Your task to perform on an android device: Open the calendar app, open the side menu, and click the "Day" option Image 0: 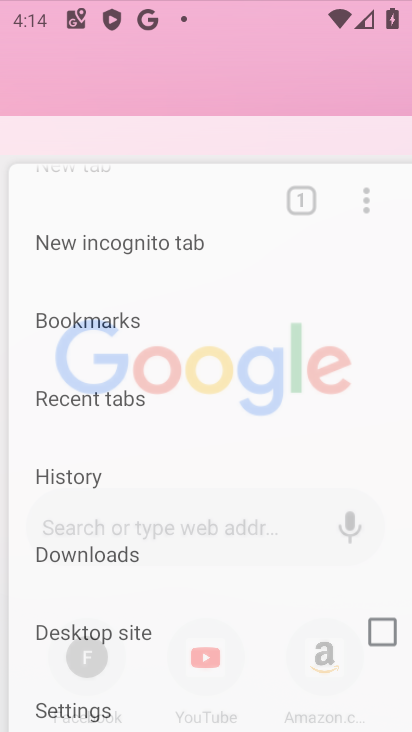
Step 0: press home button
Your task to perform on an android device: Open the calendar app, open the side menu, and click the "Day" option Image 1: 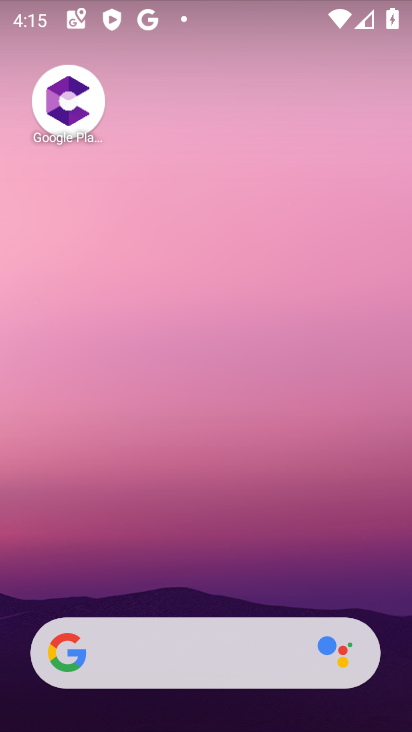
Step 1: click (147, 208)
Your task to perform on an android device: Open the calendar app, open the side menu, and click the "Day" option Image 2: 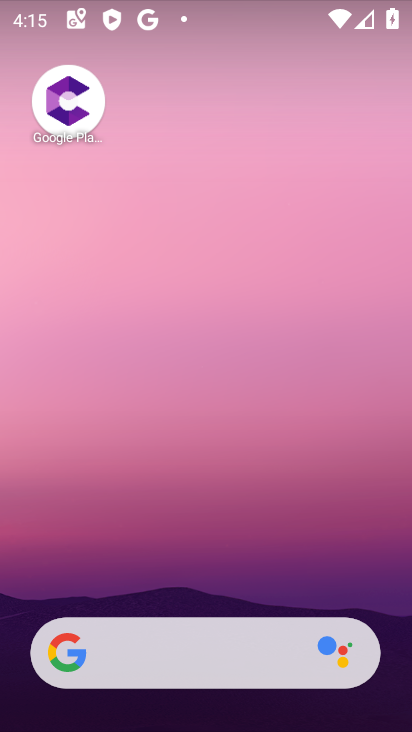
Step 2: click (172, 158)
Your task to perform on an android device: Open the calendar app, open the side menu, and click the "Day" option Image 3: 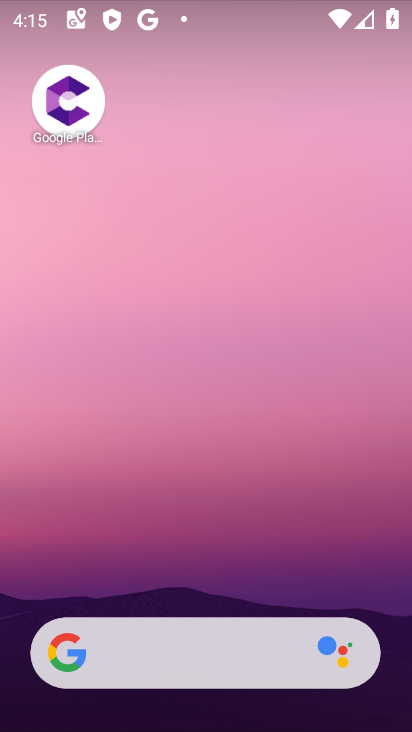
Step 3: drag from (212, 613) to (279, 59)
Your task to perform on an android device: Open the calendar app, open the side menu, and click the "Day" option Image 4: 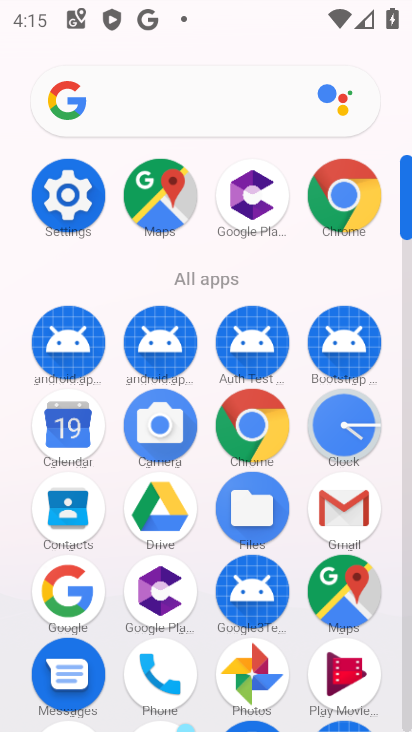
Step 4: click (49, 422)
Your task to perform on an android device: Open the calendar app, open the side menu, and click the "Day" option Image 5: 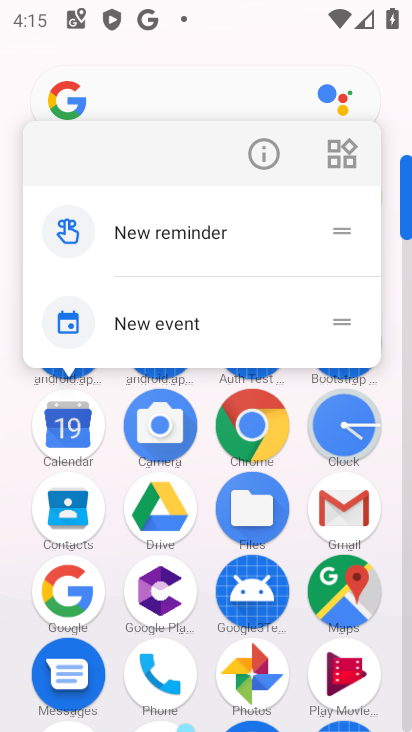
Step 5: click (56, 428)
Your task to perform on an android device: Open the calendar app, open the side menu, and click the "Day" option Image 6: 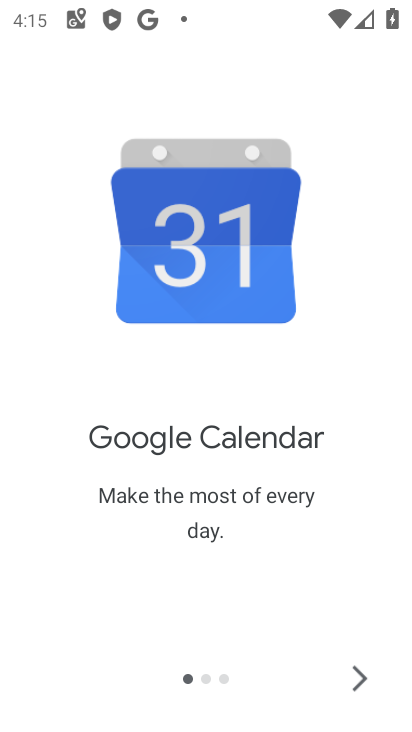
Step 6: click (352, 687)
Your task to perform on an android device: Open the calendar app, open the side menu, and click the "Day" option Image 7: 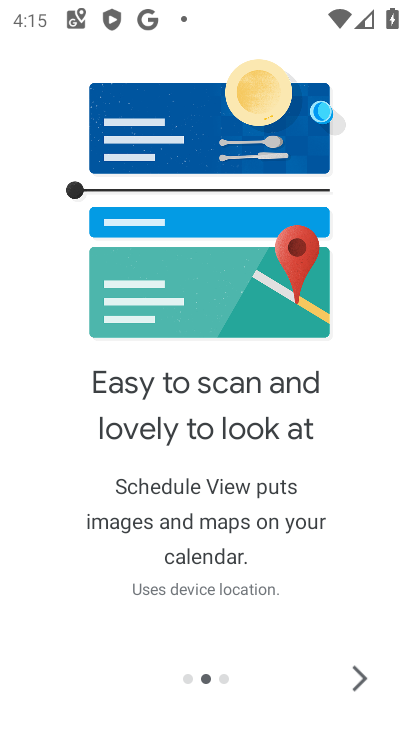
Step 7: click (362, 679)
Your task to perform on an android device: Open the calendar app, open the side menu, and click the "Day" option Image 8: 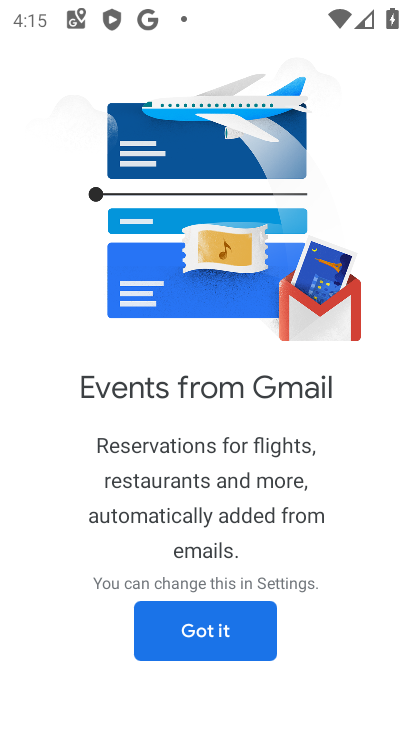
Step 8: click (212, 632)
Your task to perform on an android device: Open the calendar app, open the side menu, and click the "Day" option Image 9: 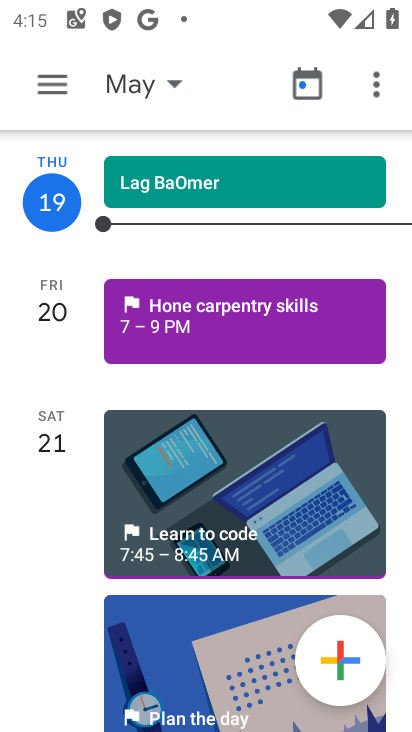
Step 9: click (59, 83)
Your task to perform on an android device: Open the calendar app, open the side menu, and click the "Day" option Image 10: 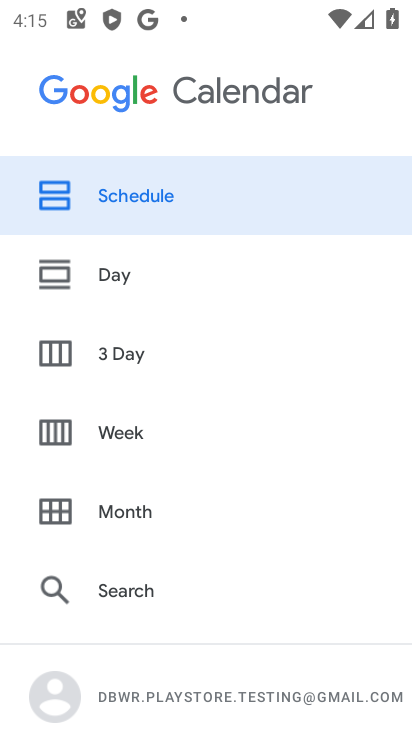
Step 10: click (115, 288)
Your task to perform on an android device: Open the calendar app, open the side menu, and click the "Day" option Image 11: 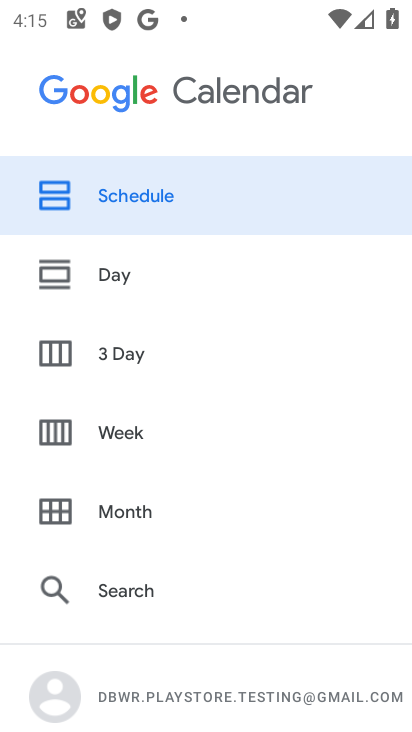
Step 11: click (119, 273)
Your task to perform on an android device: Open the calendar app, open the side menu, and click the "Day" option Image 12: 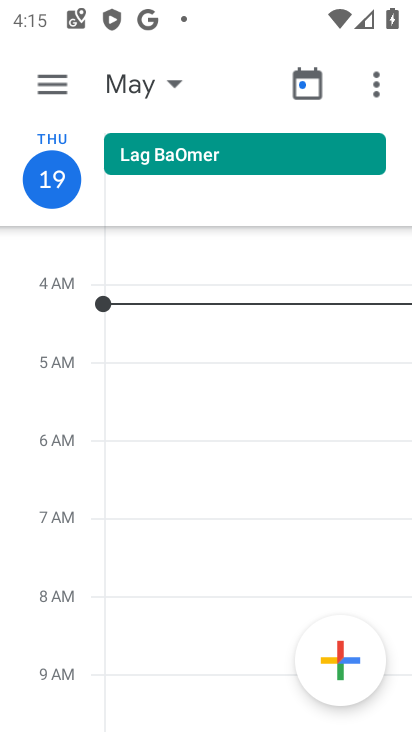
Step 12: task complete